Your task to perform on an android device: turn pop-ups on in chrome Image 0: 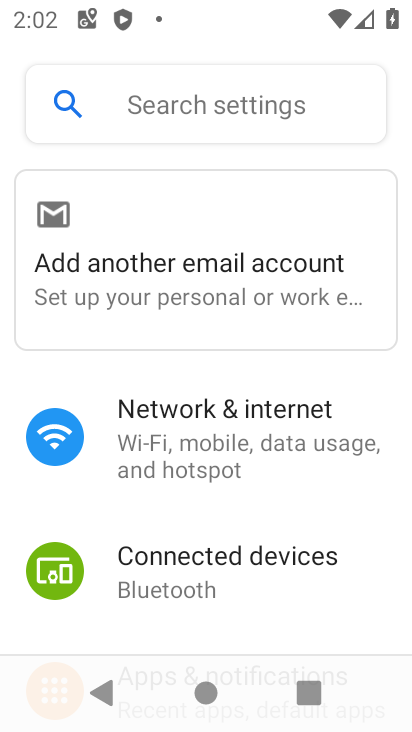
Step 0: press home button
Your task to perform on an android device: turn pop-ups on in chrome Image 1: 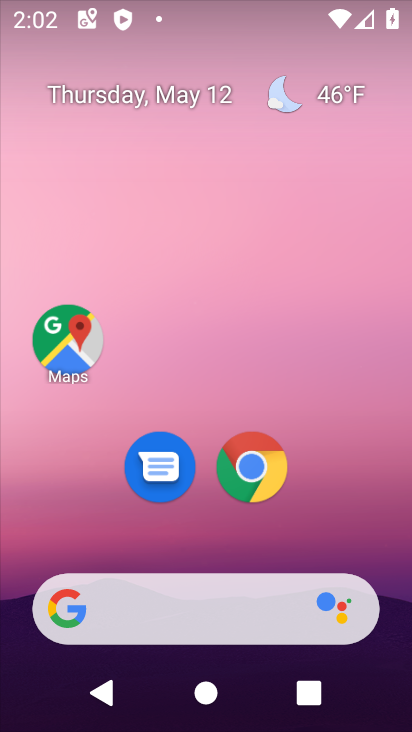
Step 1: click (282, 472)
Your task to perform on an android device: turn pop-ups on in chrome Image 2: 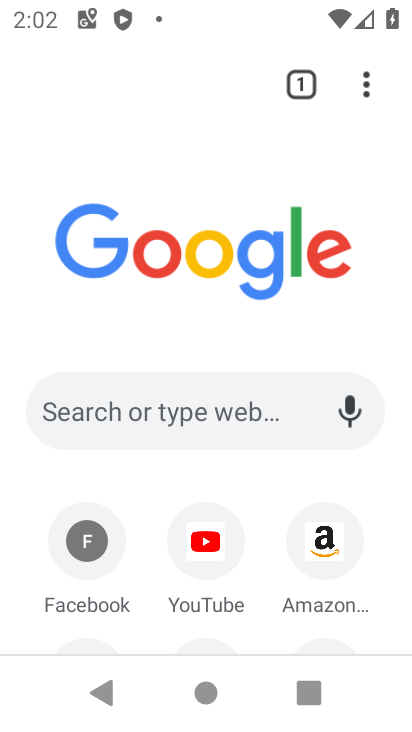
Step 2: click (375, 85)
Your task to perform on an android device: turn pop-ups on in chrome Image 3: 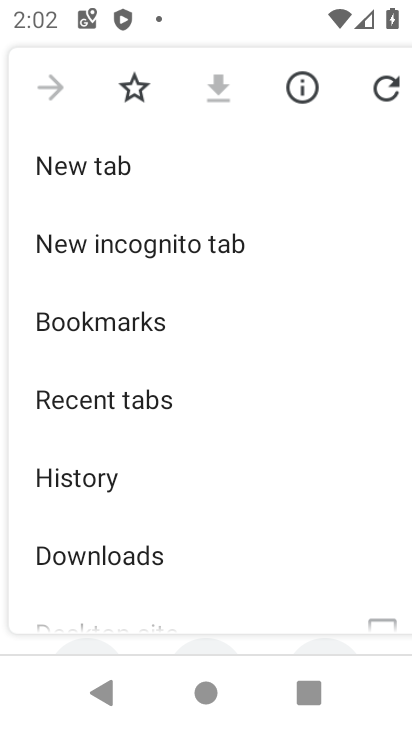
Step 3: drag from (223, 524) to (168, 259)
Your task to perform on an android device: turn pop-ups on in chrome Image 4: 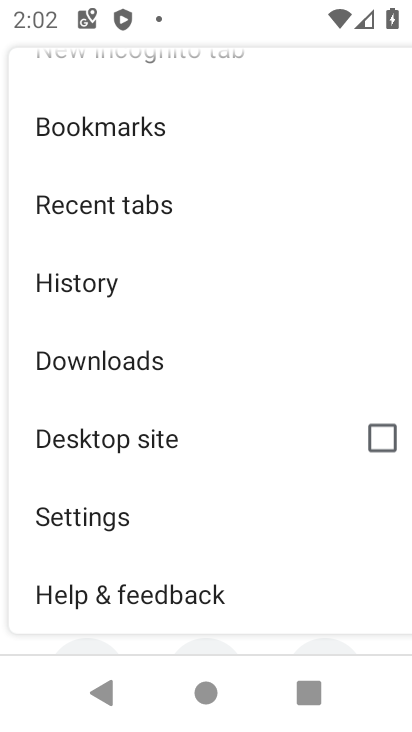
Step 4: click (114, 514)
Your task to perform on an android device: turn pop-ups on in chrome Image 5: 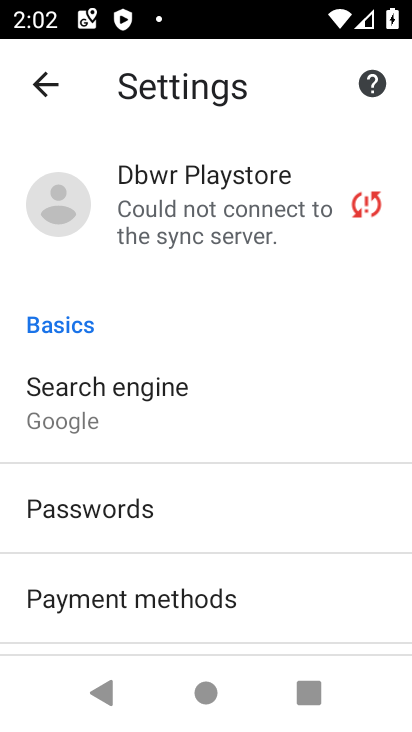
Step 5: drag from (224, 534) to (215, 218)
Your task to perform on an android device: turn pop-ups on in chrome Image 6: 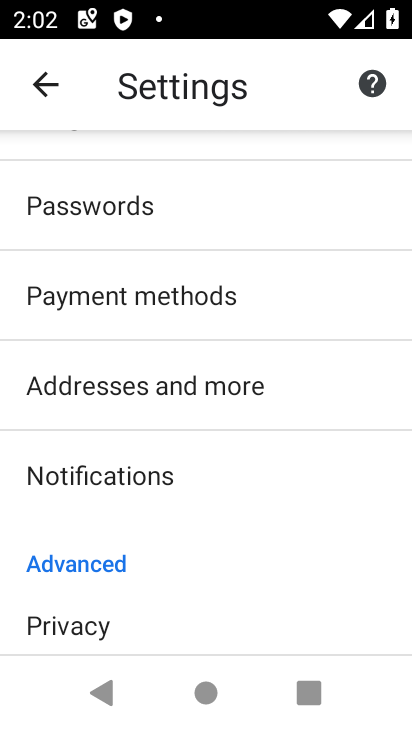
Step 6: drag from (253, 526) to (215, 257)
Your task to perform on an android device: turn pop-ups on in chrome Image 7: 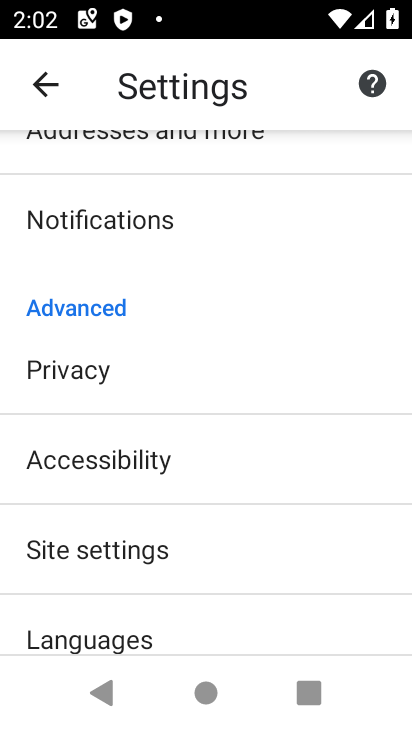
Step 7: click (187, 546)
Your task to perform on an android device: turn pop-ups on in chrome Image 8: 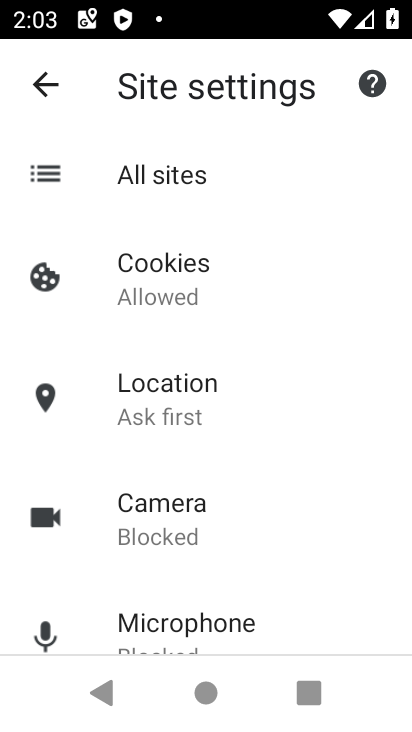
Step 8: task complete